Your task to perform on an android device: turn off data saver in the chrome app Image 0: 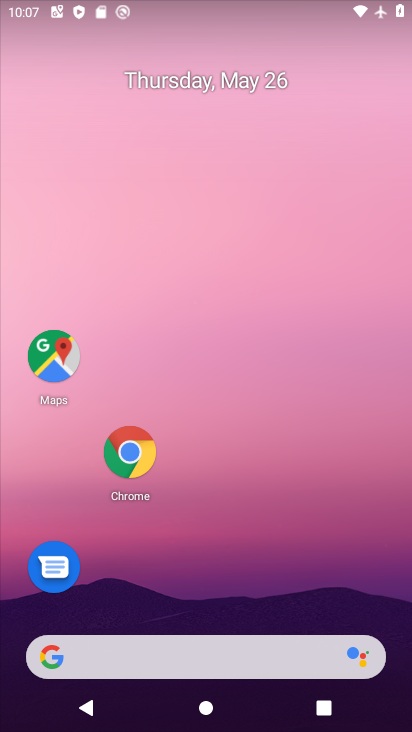
Step 0: press home button
Your task to perform on an android device: turn off data saver in the chrome app Image 1: 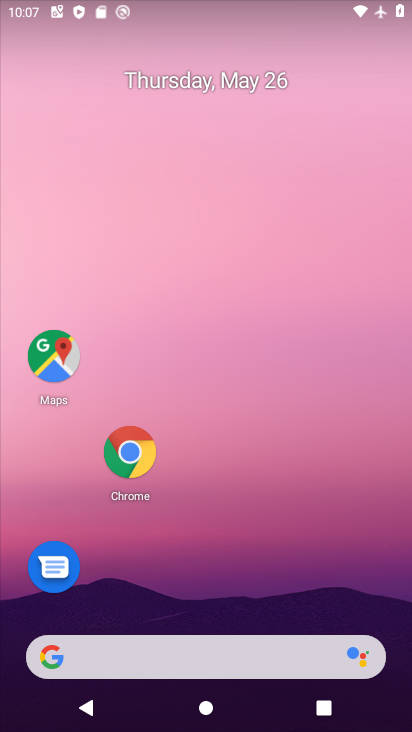
Step 1: click (130, 457)
Your task to perform on an android device: turn off data saver in the chrome app Image 2: 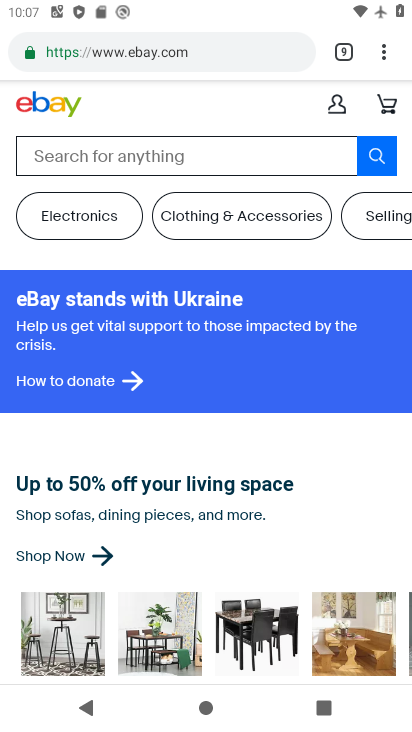
Step 2: drag from (381, 51) to (209, 600)
Your task to perform on an android device: turn off data saver in the chrome app Image 3: 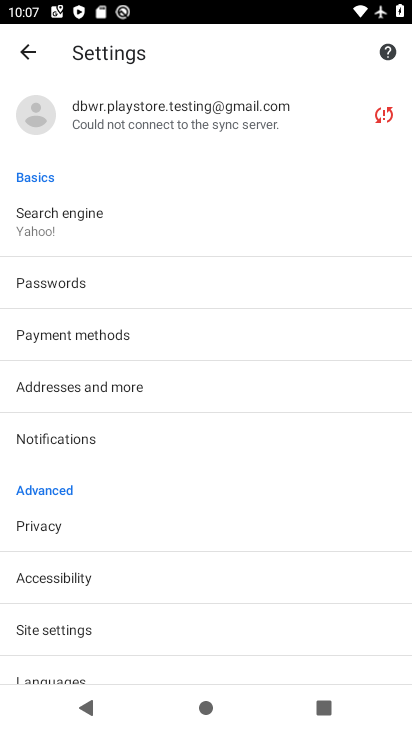
Step 3: drag from (171, 640) to (254, 284)
Your task to perform on an android device: turn off data saver in the chrome app Image 4: 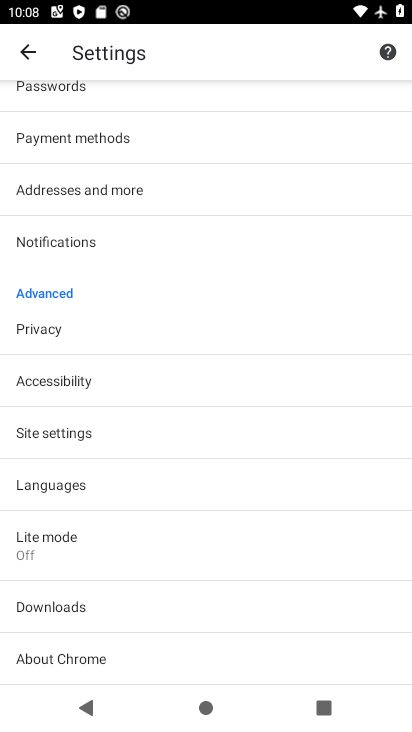
Step 4: click (59, 546)
Your task to perform on an android device: turn off data saver in the chrome app Image 5: 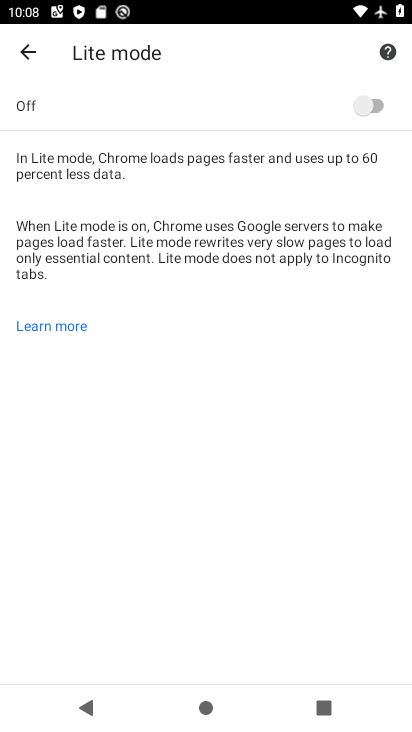
Step 5: task complete